Your task to perform on an android device: toggle notifications settings in the gmail app Image 0: 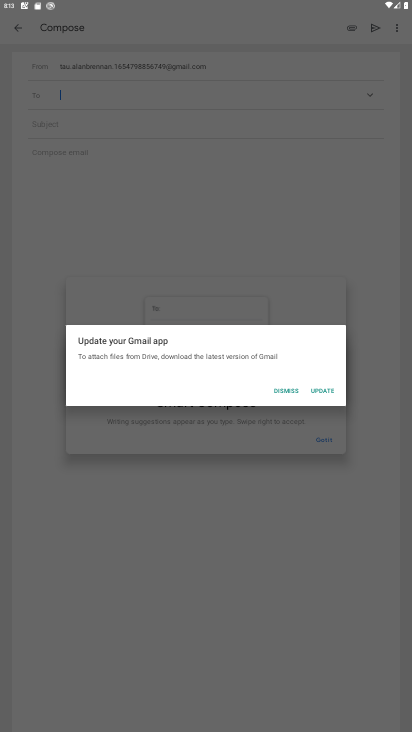
Step 0: press home button
Your task to perform on an android device: toggle notifications settings in the gmail app Image 1: 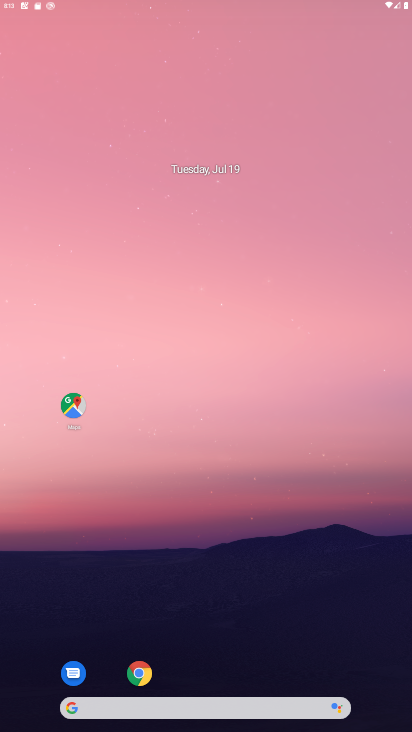
Step 1: drag from (339, 715) to (359, 23)
Your task to perform on an android device: toggle notifications settings in the gmail app Image 2: 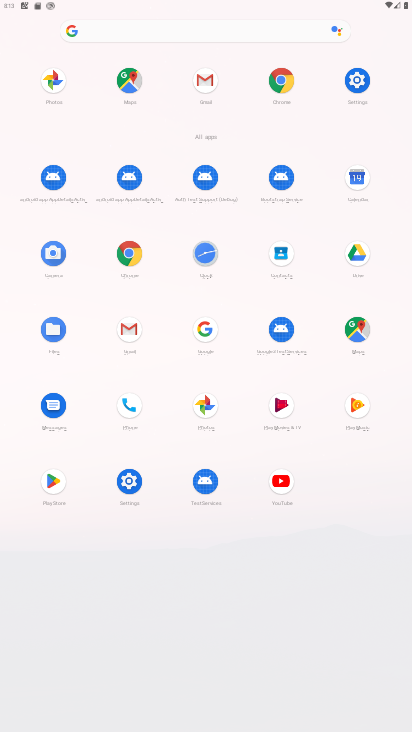
Step 2: click (133, 333)
Your task to perform on an android device: toggle notifications settings in the gmail app Image 3: 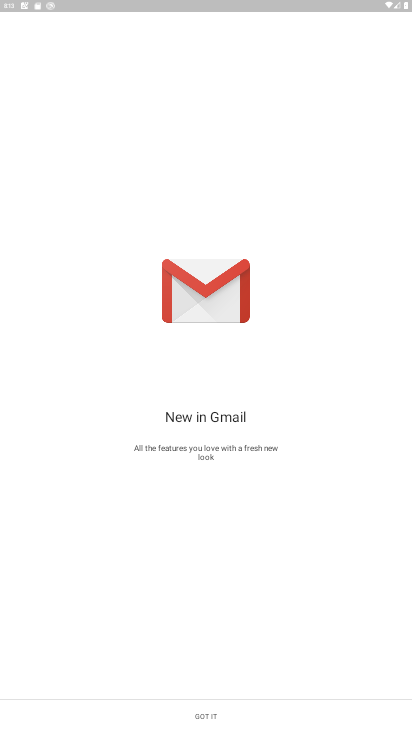
Step 3: click (270, 726)
Your task to perform on an android device: toggle notifications settings in the gmail app Image 4: 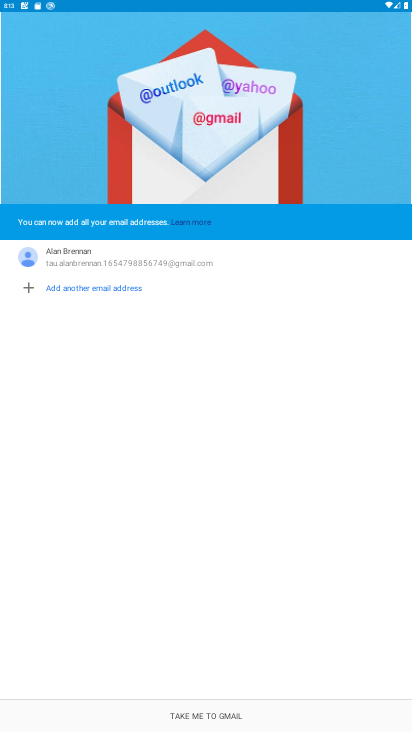
Step 4: click (263, 712)
Your task to perform on an android device: toggle notifications settings in the gmail app Image 5: 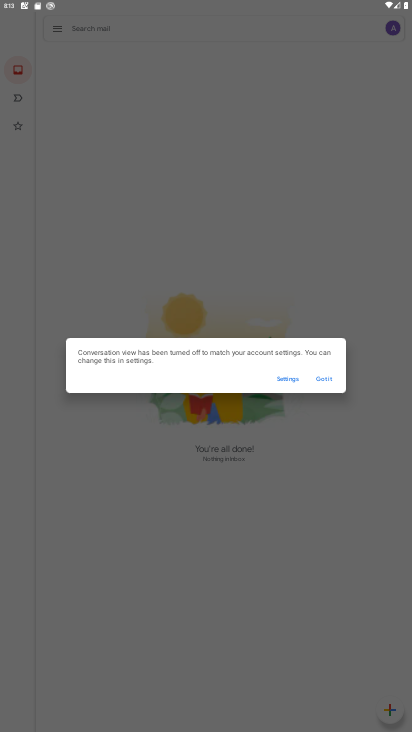
Step 5: click (268, 262)
Your task to perform on an android device: toggle notifications settings in the gmail app Image 6: 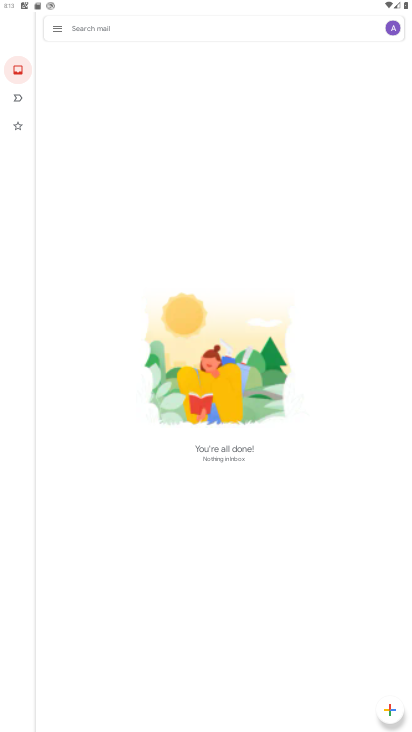
Step 6: click (58, 25)
Your task to perform on an android device: toggle notifications settings in the gmail app Image 7: 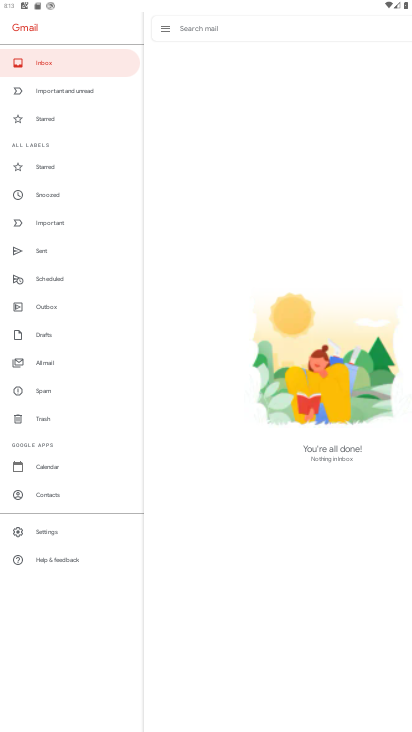
Step 7: click (59, 535)
Your task to perform on an android device: toggle notifications settings in the gmail app Image 8: 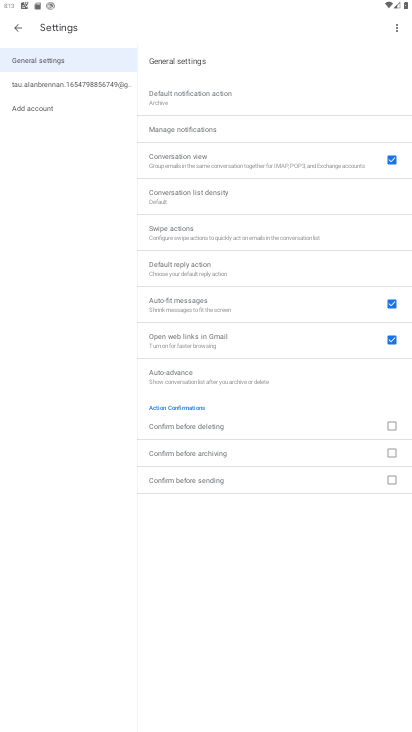
Step 8: click (114, 77)
Your task to perform on an android device: toggle notifications settings in the gmail app Image 9: 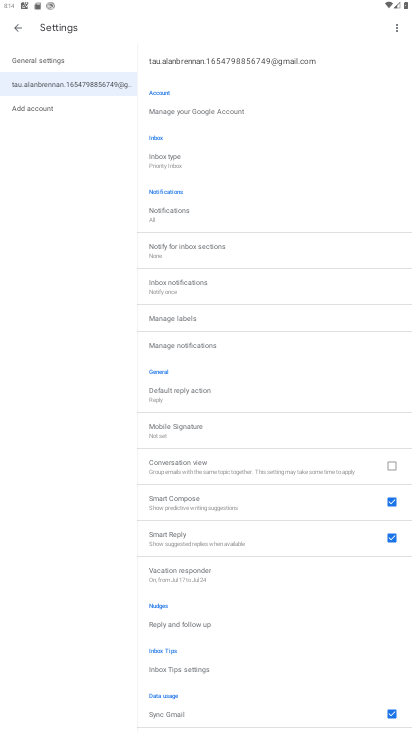
Step 9: click (198, 341)
Your task to perform on an android device: toggle notifications settings in the gmail app Image 10: 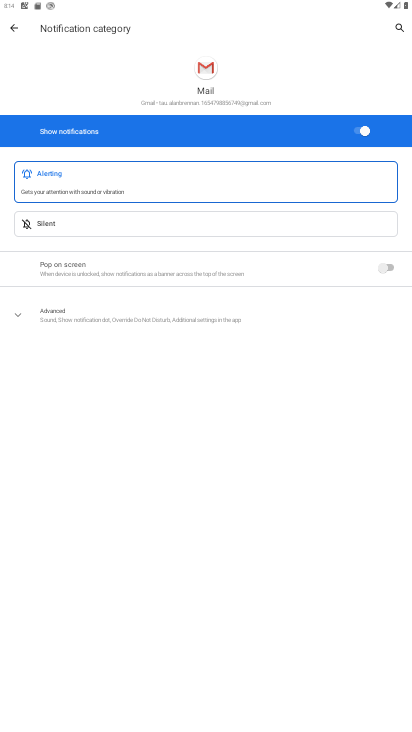
Step 10: click (370, 135)
Your task to perform on an android device: toggle notifications settings in the gmail app Image 11: 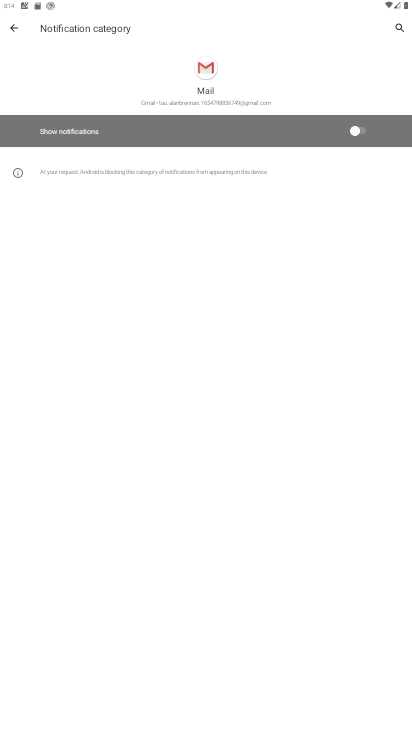
Step 11: task complete